Your task to perform on an android device: What's the weather today? Image 0: 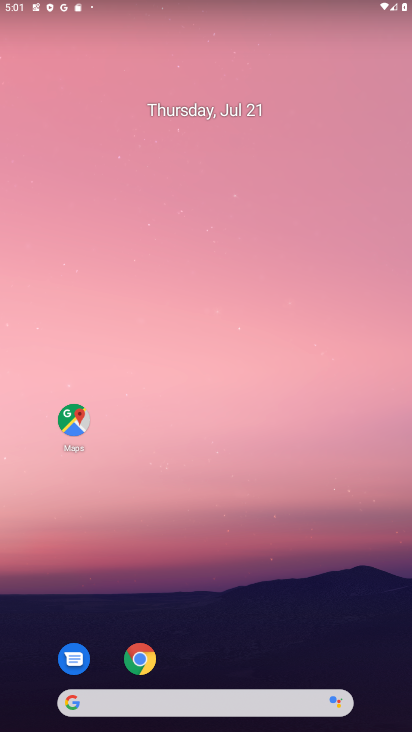
Step 0: click (205, 706)
Your task to perform on an android device: What's the weather today? Image 1: 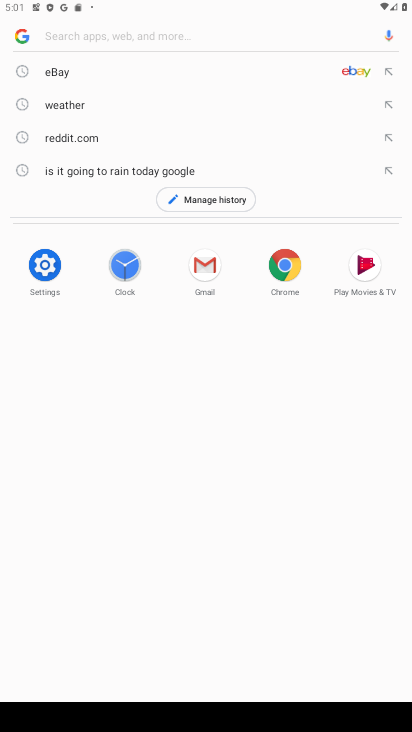
Step 1: click (67, 108)
Your task to perform on an android device: What's the weather today? Image 2: 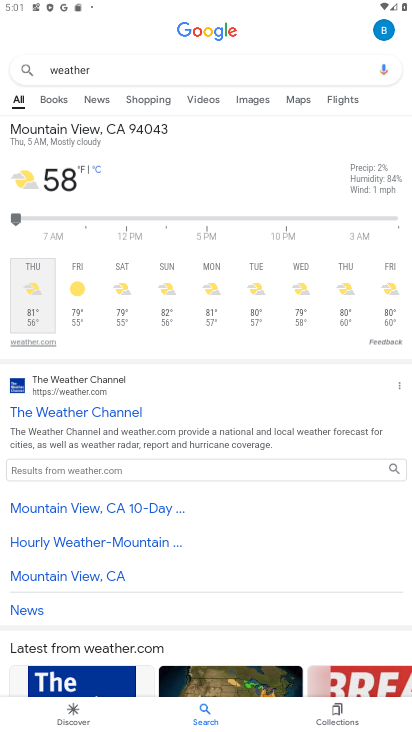
Step 2: task complete